Your task to perform on an android device: turn off location history Image 0: 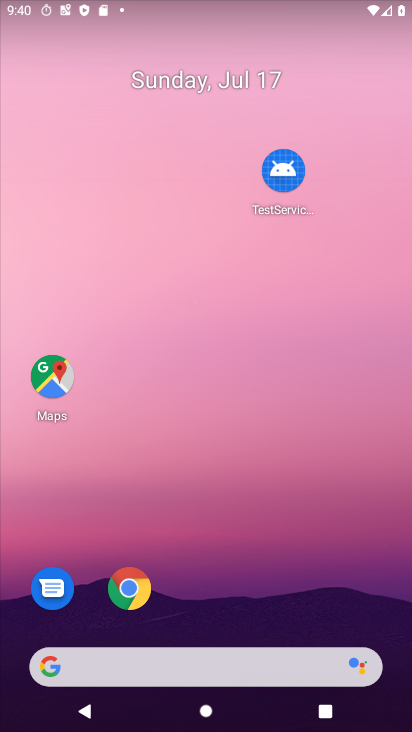
Step 0: drag from (287, 609) to (295, 137)
Your task to perform on an android device: turn off location history Image 1: 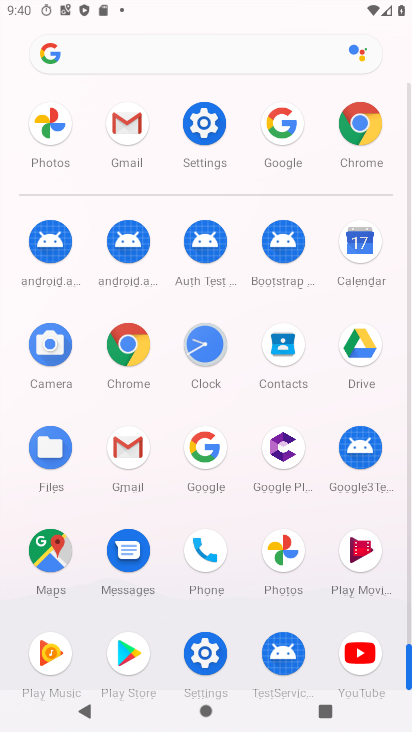
Step 1: click (213, 134)
Your task to perform on an android device: turn off location history Image 2: 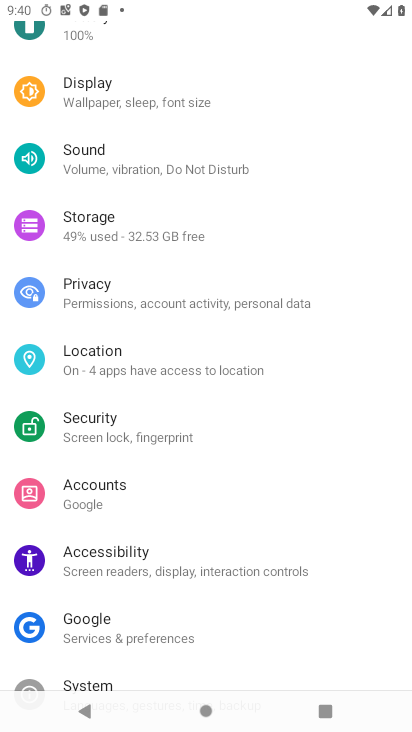
Step 2: drag from (220, 247) to (167, 565)
Your task to perform on an android device: turn off location history Image 3: 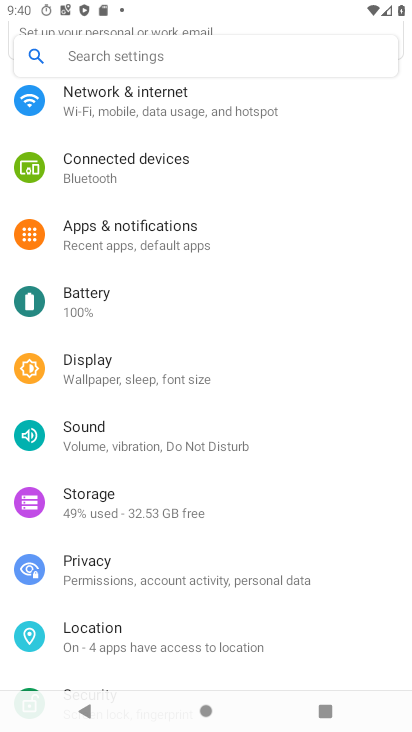
Step 3: drag from (179, 301) to (181, 540)
Your task to perform on an android device: turn off location history Image 4: 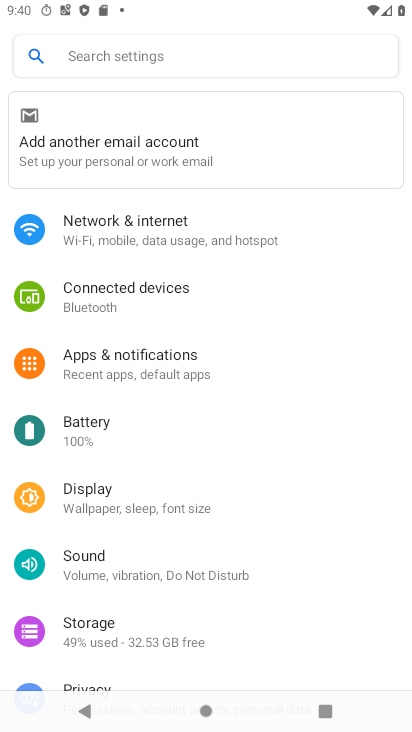
Step 4: drag from (189, 522) to (221, 254)
Your task to perform on an android device: turn off location history Image 5: 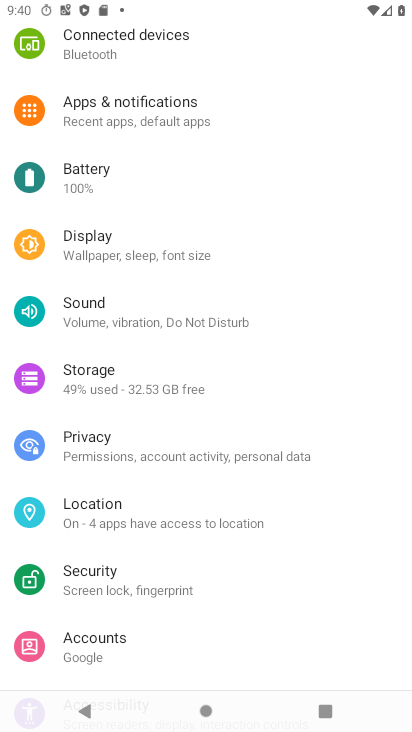
Step 5: click (191, 524)
Your task to perform on an android device: turn off location history Image 6: 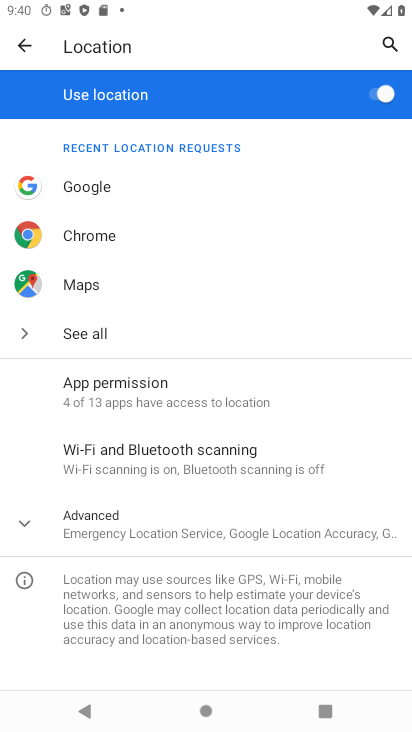
Step 6: click (163, 529)
Your task to perform on an android device: turn off location history Image 7: 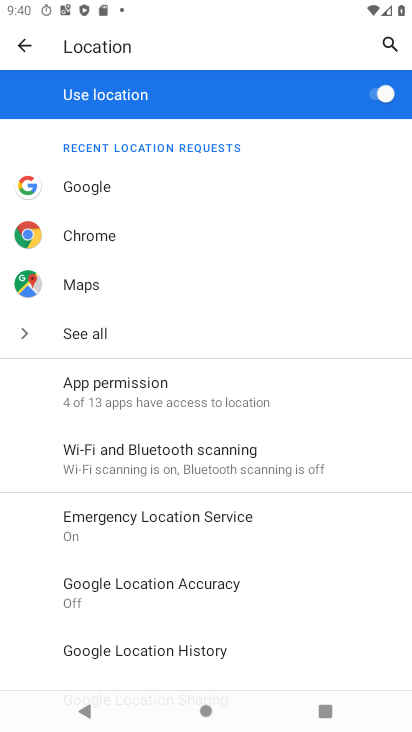
Step 7: drag from (173, 652) to (205, 448)
Your task to perform on an android device: turn off location history Image 8: 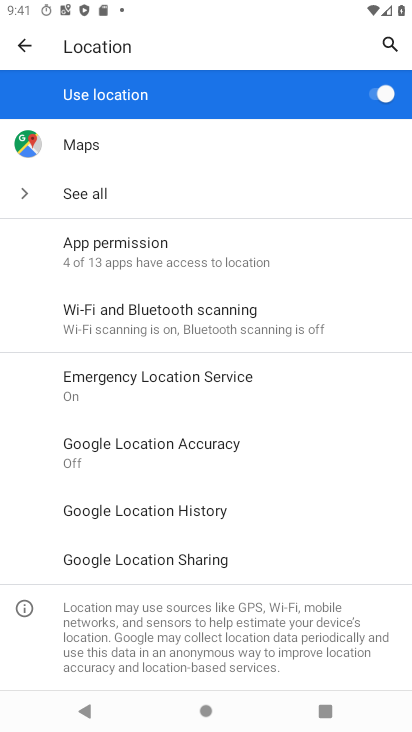
Step 8: click (191, 518)
Your task to perform on an android device: turn off location history Image 9: 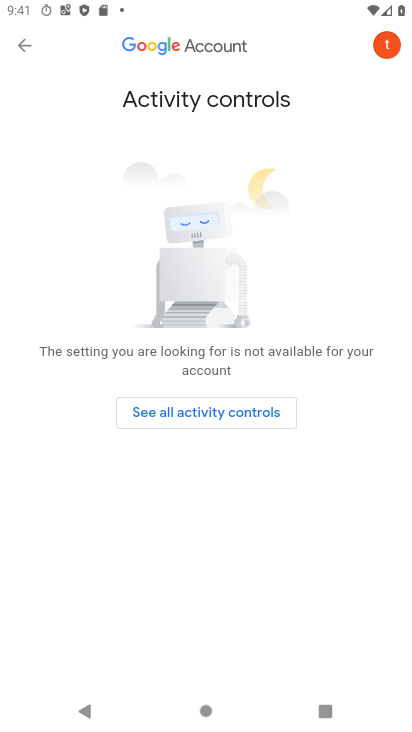
Step 9: task complete